Your task to perform on an android device: Open Android settings Image 0: 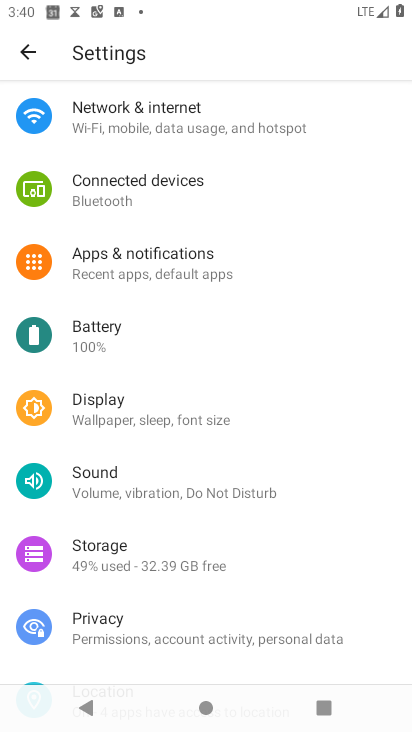
Step 0: drag from (158, 617) to (263, 29)
Your task to perform on an android device: Open Android settings Image 1: 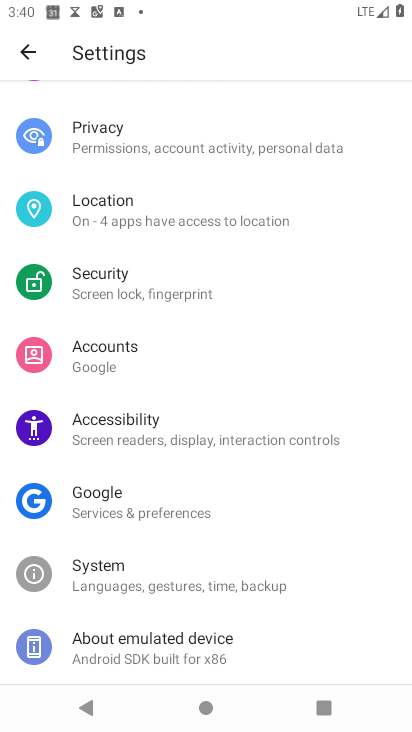
Step 1: click (163, 655)
Your task to perform on an android device: Open Android settings Image 2: 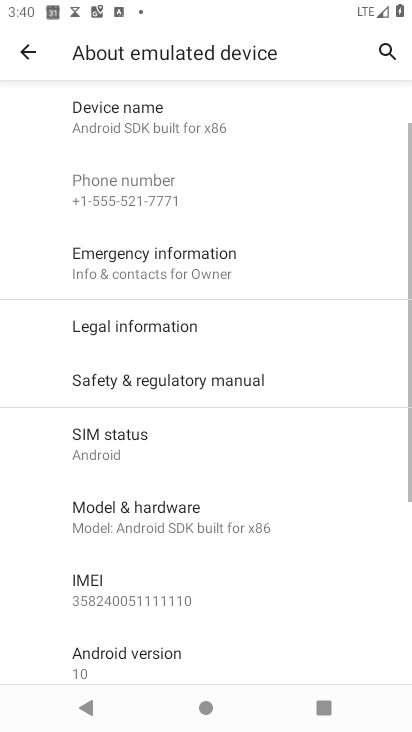
Step 2: drag from (191, 654) to (227, 380)
Your task to perform on an android device: Open Android settings Image 3: 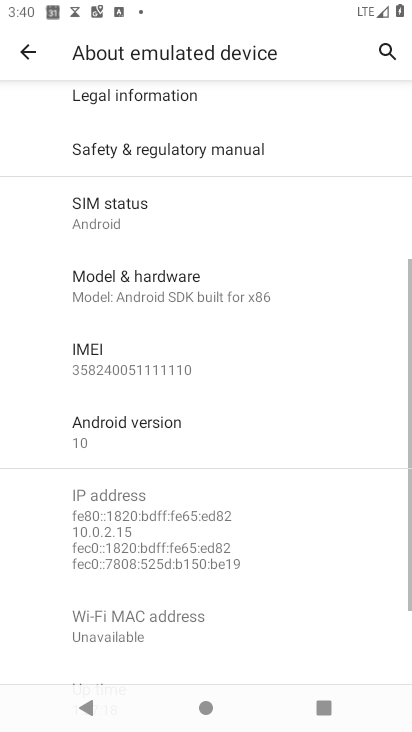
Step 3: click (173, 435)
Your task to perform on an android device: Open Android settings Image 4: 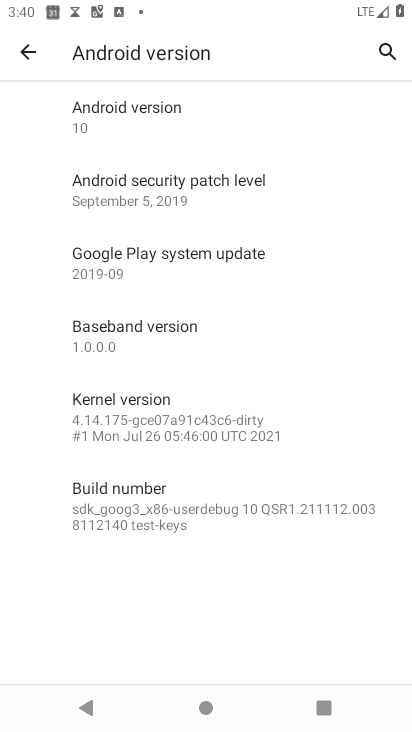
Step 4: task complete